Your task to perform on an android device: remove spam from my inbox in the gmail app Image 0: 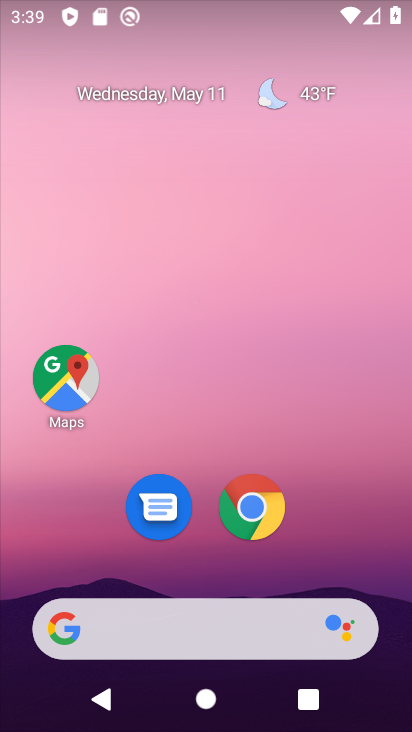
Step 0: drag from (392, 639) to (296, 116)
Your task to perform on an android device: remove spam from my inbox in the gmail app Image 1: 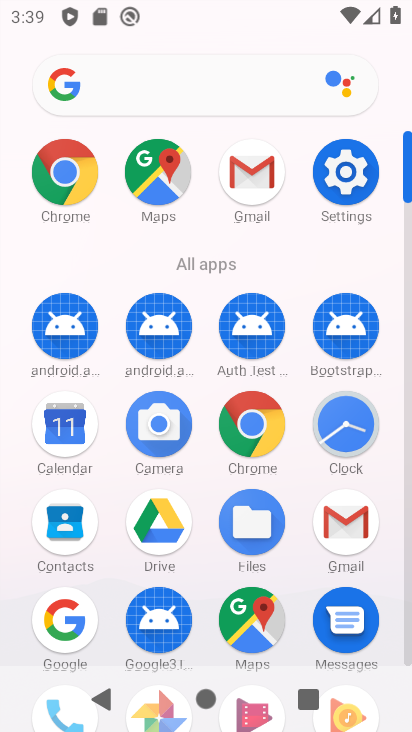
Step 1: click (406, 654)
Your task to perform on an android device: remove spam from my inbox in the gmail app Image 2: 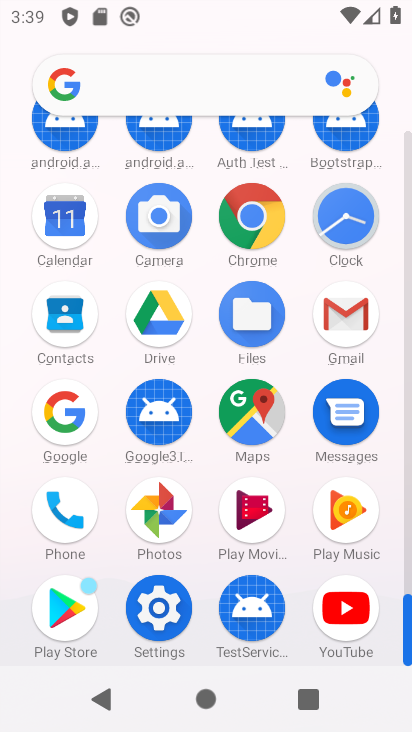
Step 2: click (342, 309)
Your task to perform on an android device: remove spam from my inbox in the gmail app Image 3: 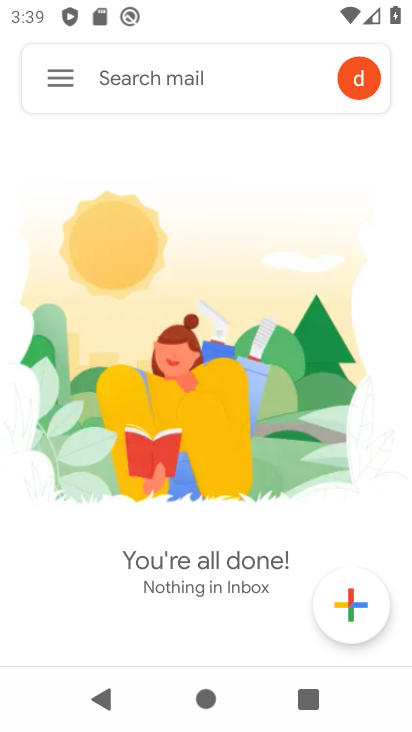
Step 3: click (55, 79)
Your task to perform on an android device: remove spam from my inbox in the gmail app Image 4: 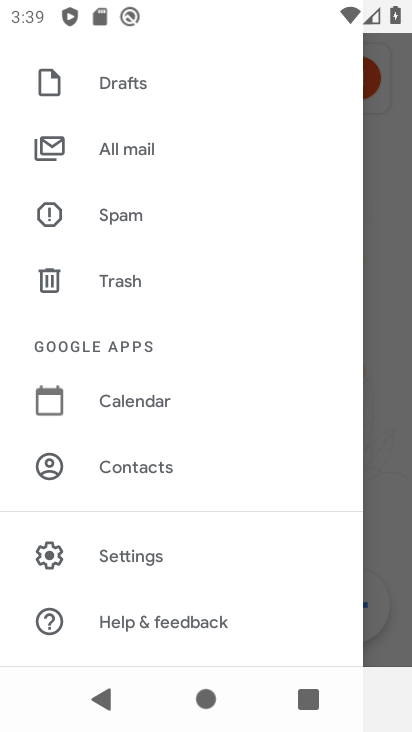
Step 4: click (114, 211)
Your task to perform on an android device: remove spam from my inbox in the gmail app Image 5: 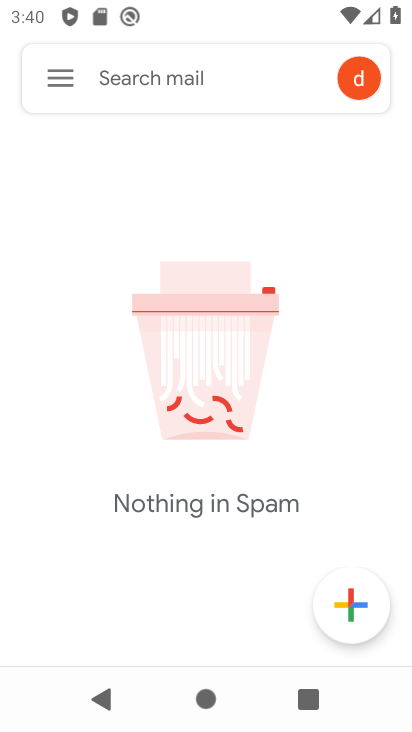
Step 5: task complete